Your task to perform on an android device: Find coffee shops on Maps Image 0: 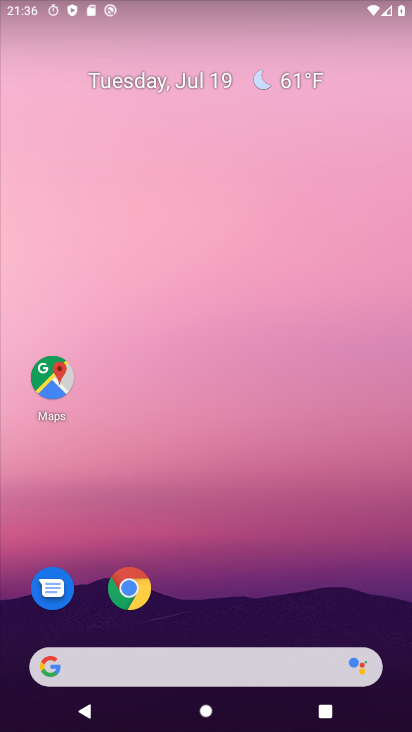
Step 0: press home button
Your task to perform on an android device: Find coffee shops on Maps Image 1: 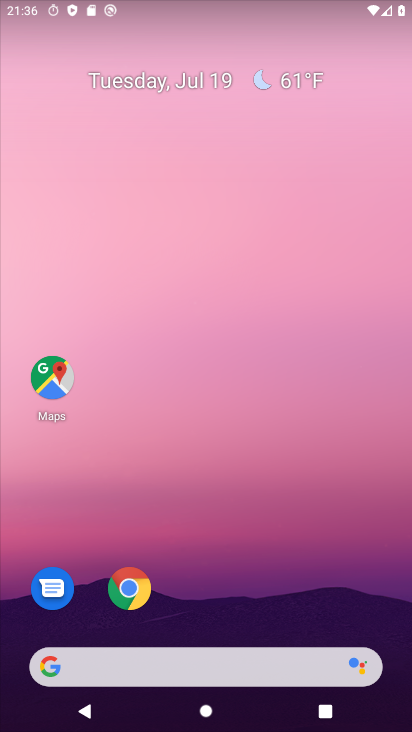
Step 1: drag from (216, 616) to (210, 61)
Your task to perform on an android device: Find coffee shops on Maps Image 2: 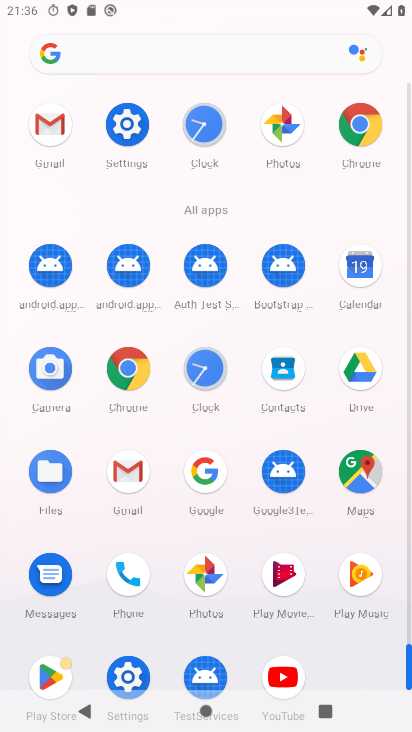
Step 2: click (359, 467)
Your task to perform on an android device: Find coffee shops on Maps Image 3: 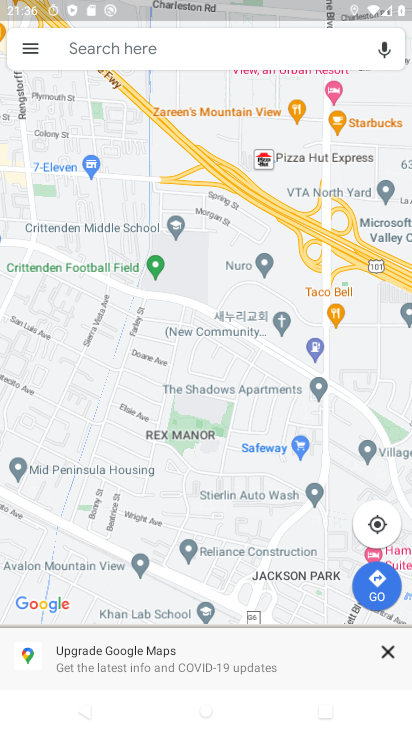
Step 3: click (126, 44)
Your task to perform on an android device: Find coffee shops on Maps Image 4: 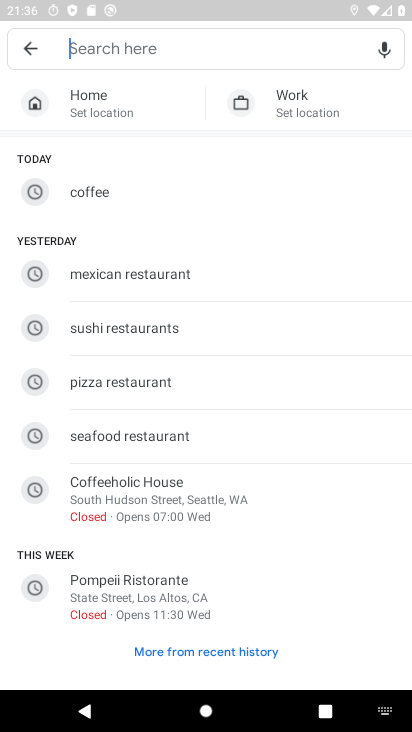
Step 4: type "coffee"
Your task to perform on an android device: Find coffee shops on Maps Image 5: 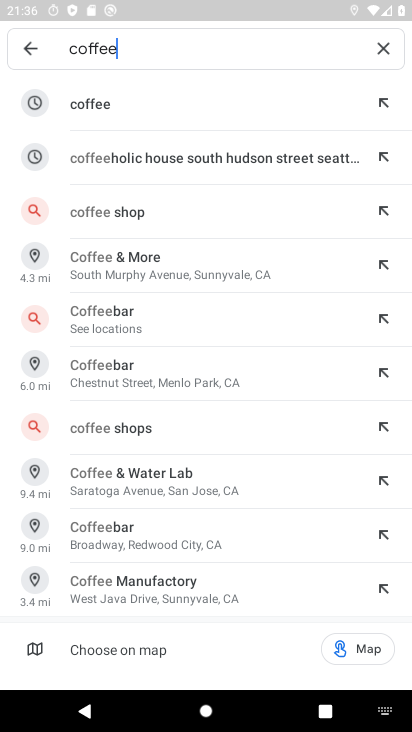
Step 5: click (110, 97)
Your task to perform on an android device: Find coffee shops on Maps Image 6: 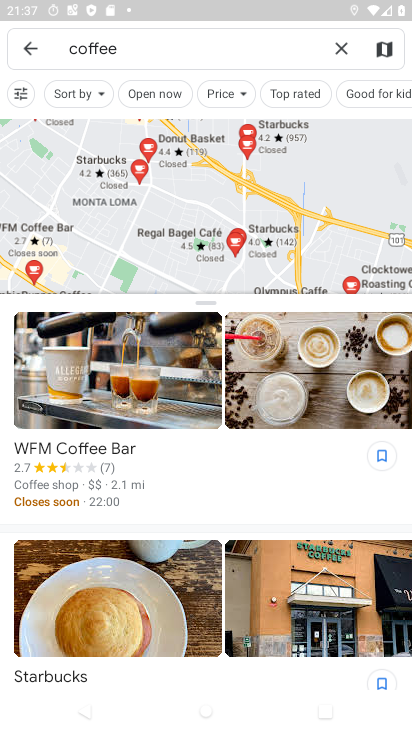
Step 6: task complete